Your task to perform on an android device: Open ESPN.com Image 0: 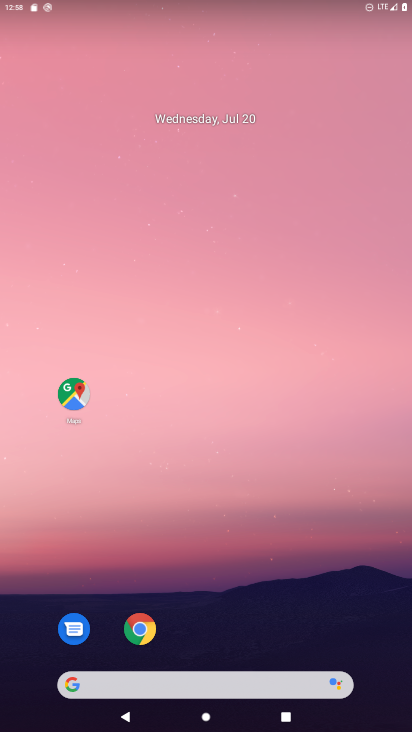
Step 0: drag from (189, 626) to (226, 81)
Your task to perform on an android device: Open ESPN.com Image 1: 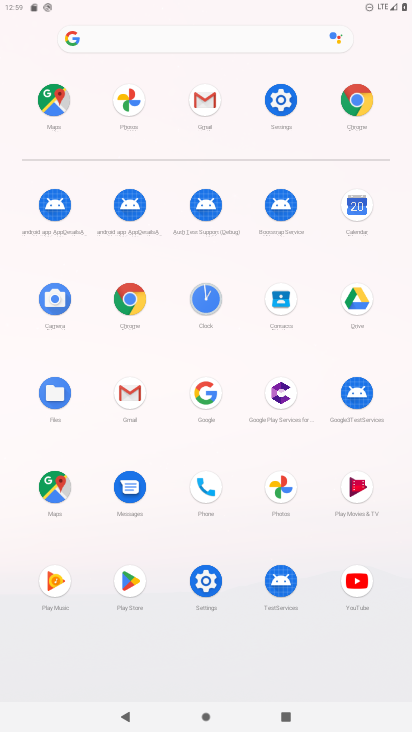
Step 1: click (136, 294)
Your task to perform on an android device: Open ESPN.com Image 2: 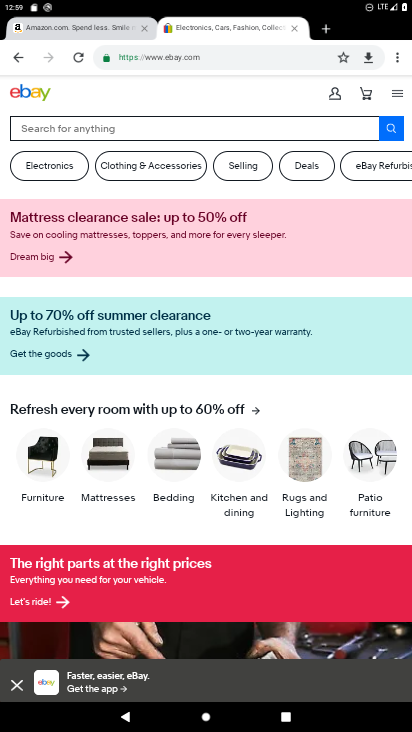
Step 2: click (128, 303)
Your task to perform on an android device: Open ESPN.com Image 3: 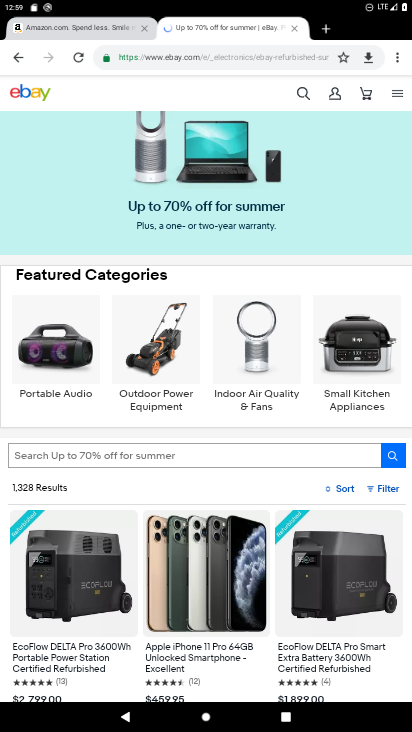
Step 3: click (127, 317)
Your task to perform on an android device: Open ESPN.com Image 4: 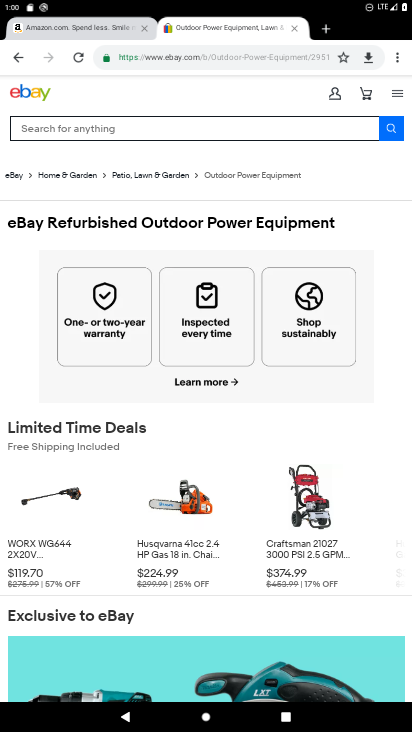
Step 4: click (294, 25)
Your task to perform on an android device: Open ESPN.com Image 5: 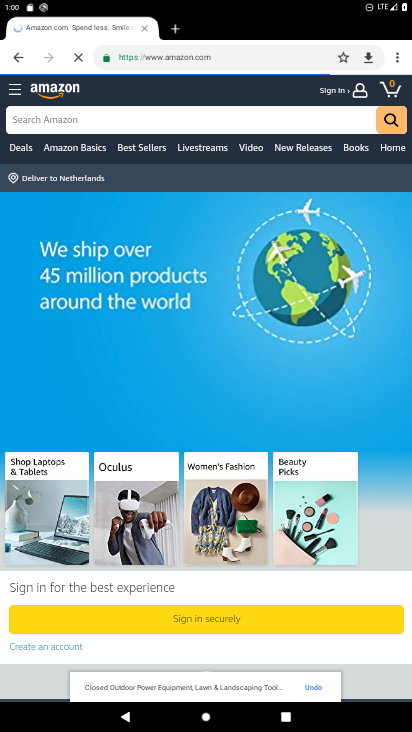
Step 5: click (294, 27)
Your task to perform on an android device: Open ESPN.com Image 6: 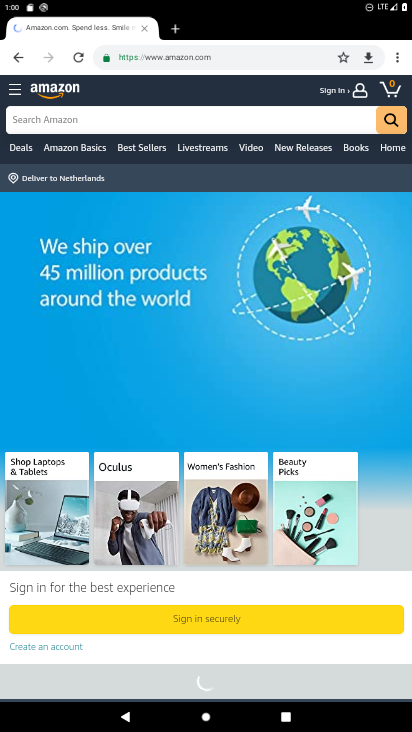
Step 6: click (206, 57)
Your task to perform on an android device: Open ESPN.com Image 7: 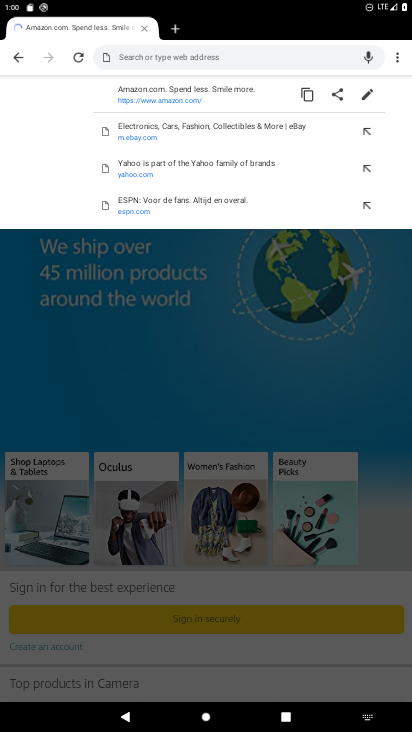
Step 7: click (173, 30)
Your task to perform on an android device: Open ESPN.com Image 8: 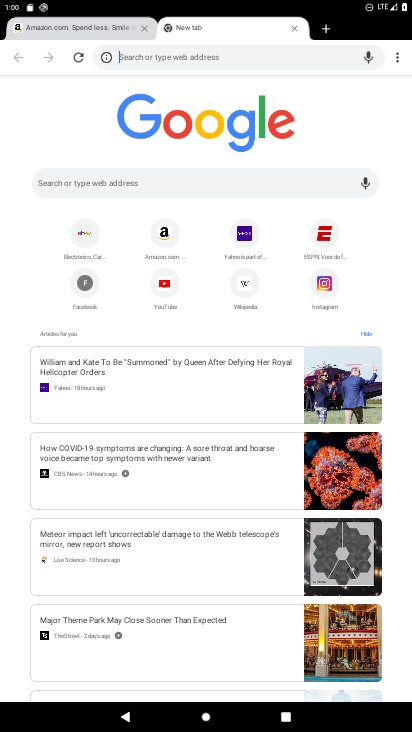
Step 8: click (320, 239)
Your task to perform on an android device: Open ESPN.com Image 9: 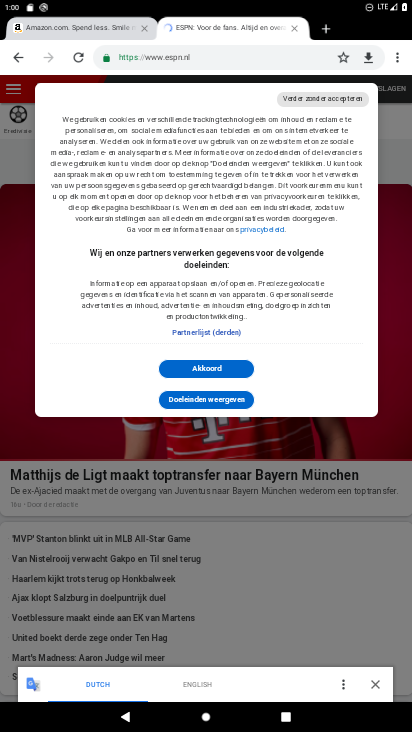
Step 9: task complete